Your task to perform on an android device: Open Maps and search for coffee Image 0: 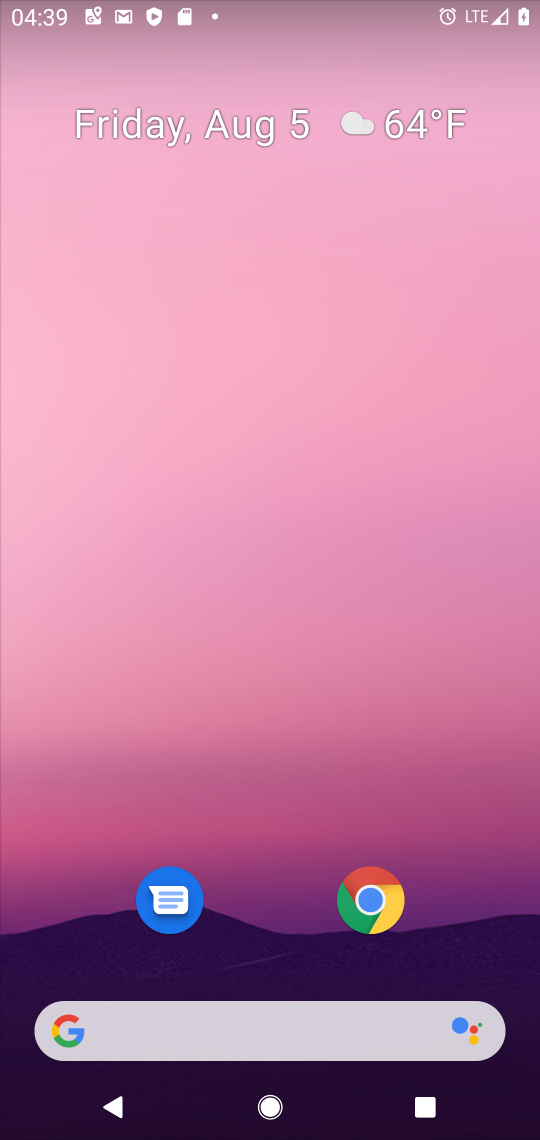
Step 0: press back button
Your task to perform on an android device: Open Maps and search for coffee Image 1: 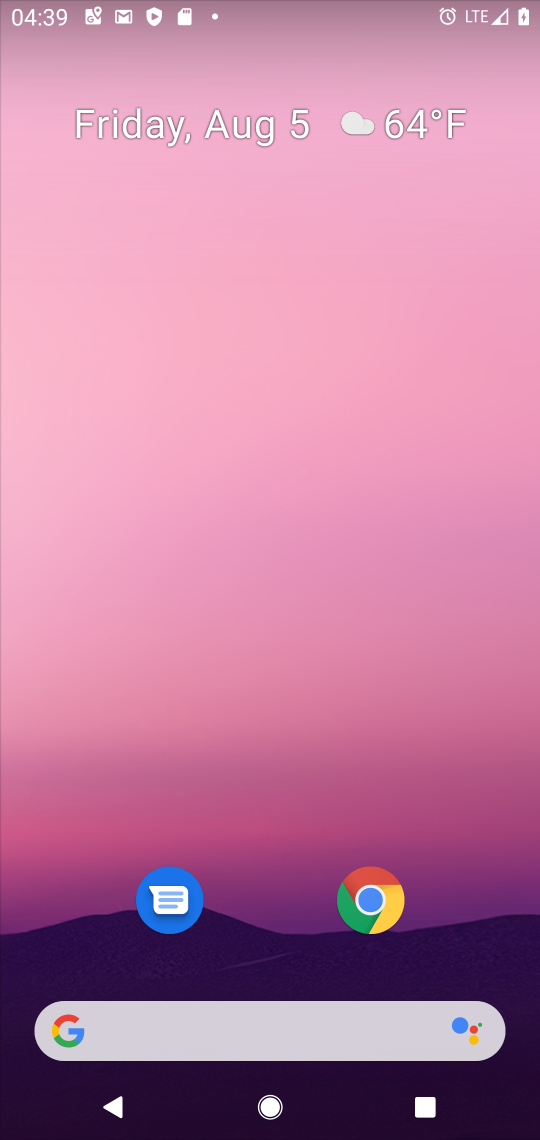
Step 1: drag from (293, 961) to (391, 115)
Your task to perform on an android device: Open Maps and search for coffee Image 2: 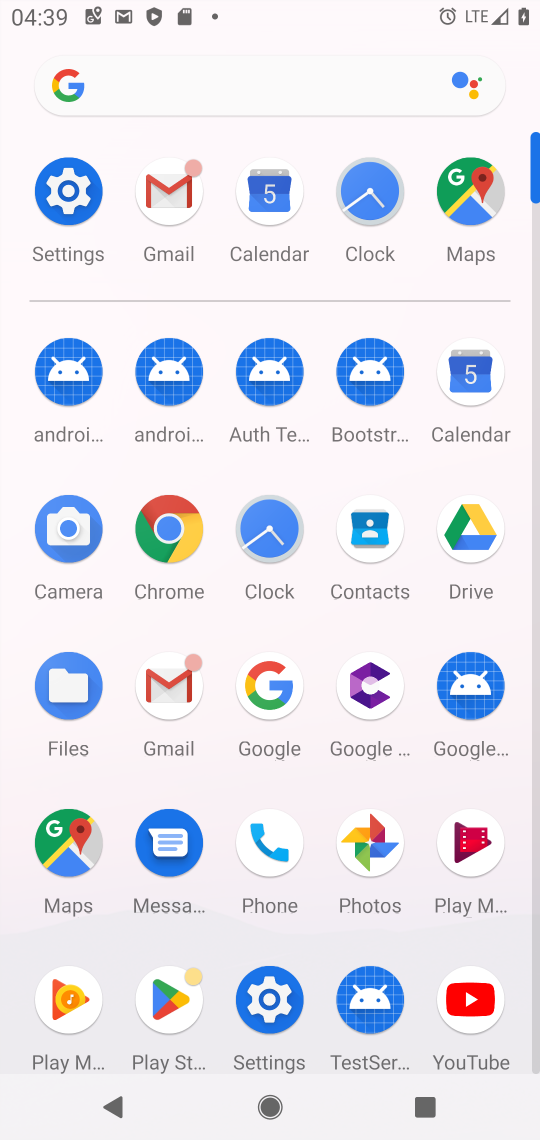
Step 2: click (474, 192)
Your task to perform on an android device: Open Maps and search for coffee Image 3: 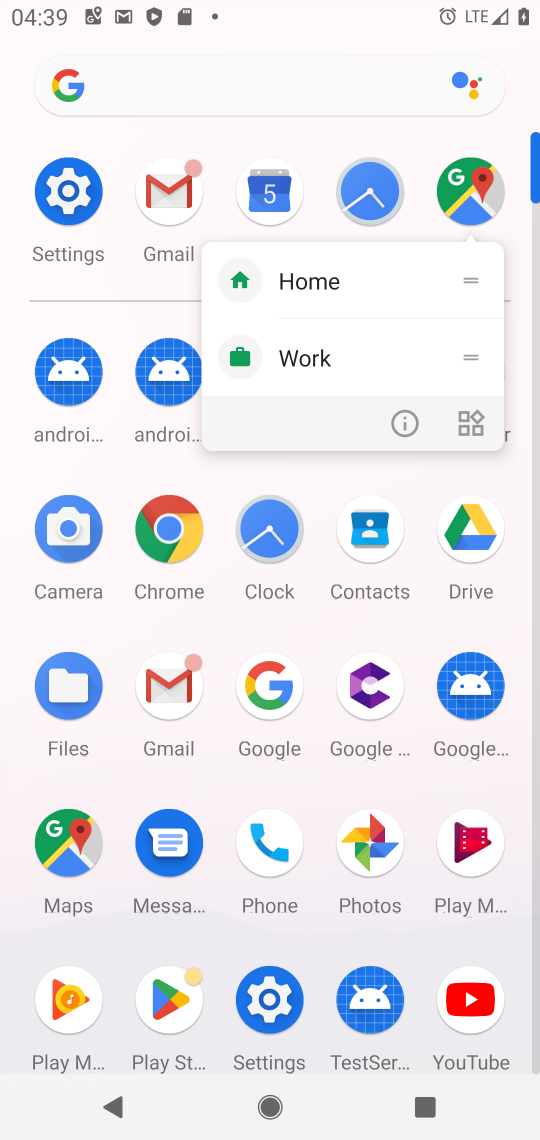
Step 3: click (465, 188)
Your task to perform on an android device: Open Maps and search for coffee Image 4: 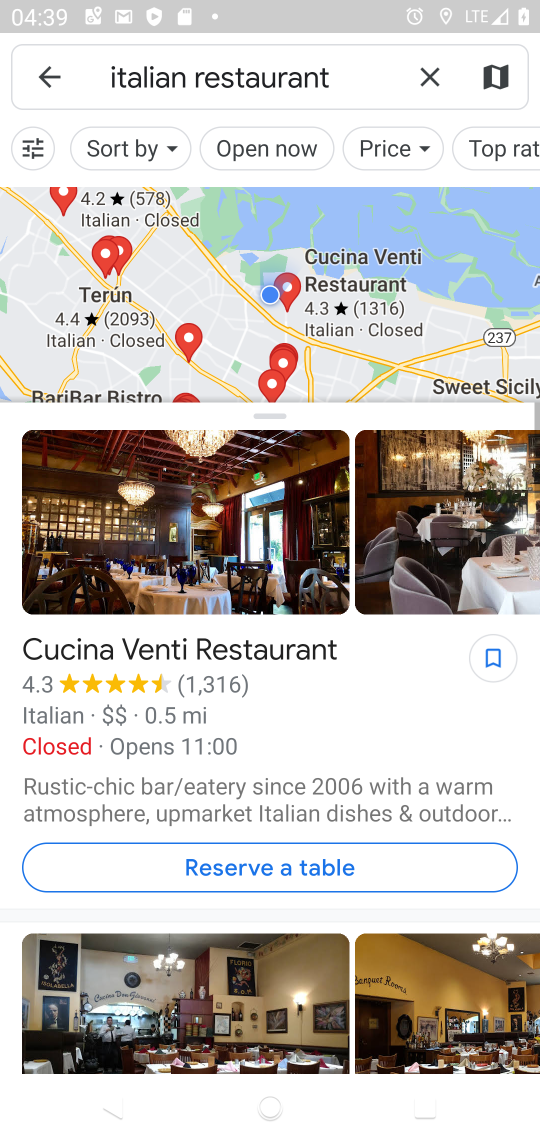
Step 4: click (425, 78)
Your task to perform on an android device: Open Maps and search for coffee Image 5: 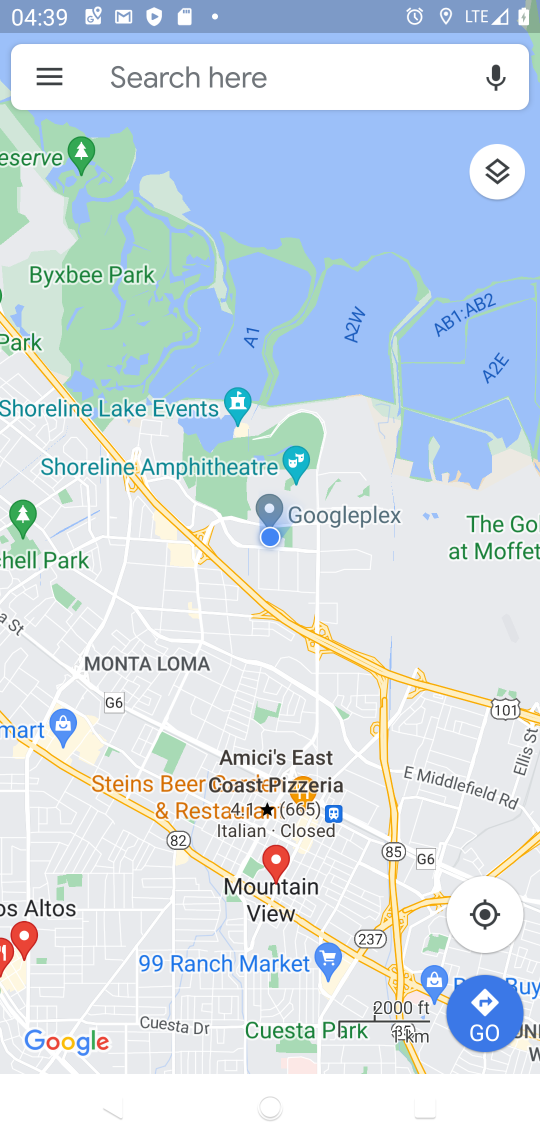
Step 5: click (221, 82)
Your task to perform on an android device: Open Maps and search for coffee Image 6: 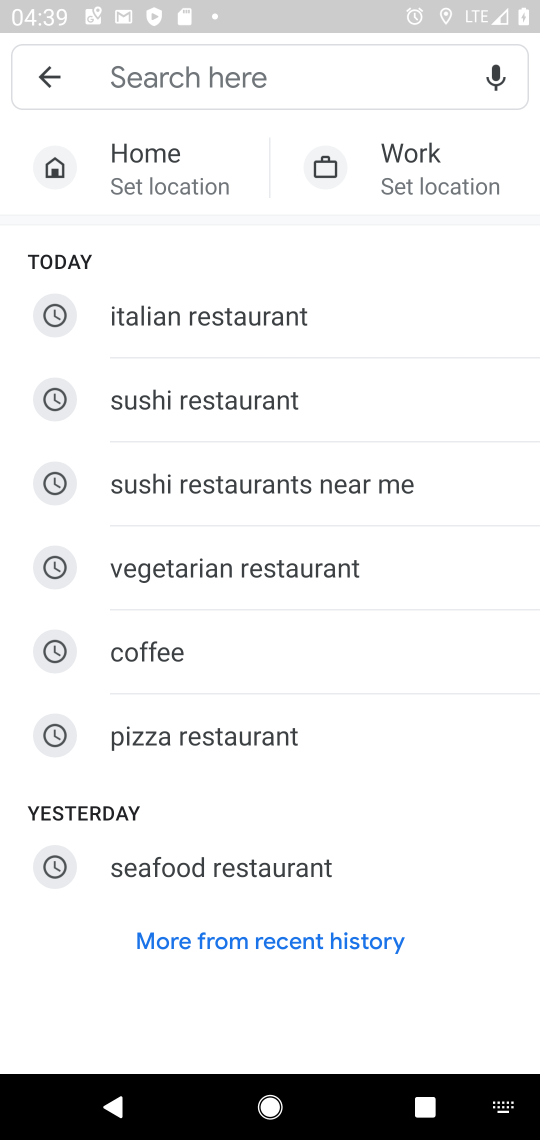
Step 6: click (150, 648)
Your task to perform on an android device: Open Maps and search for coffee Image 7: 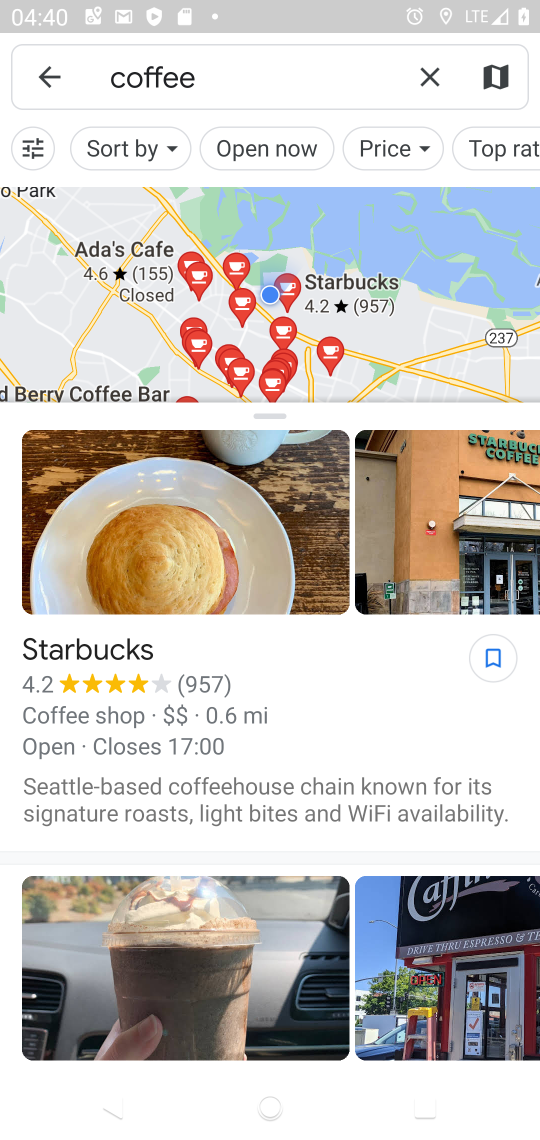
Step 7: task complete